Your task to perform on an android device: turn off improve location accuracy Image 0: 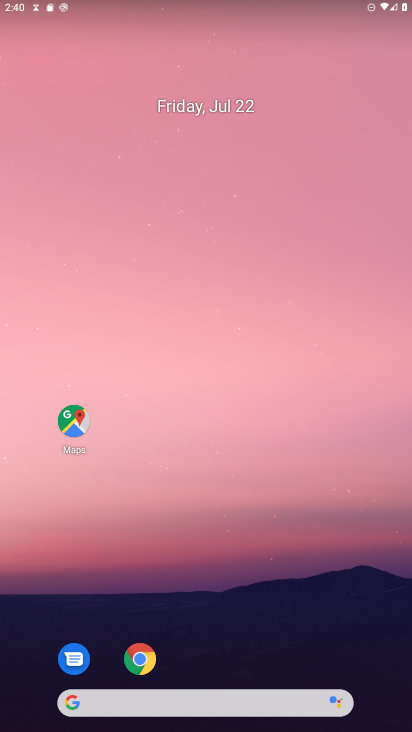
Step 0: drag from (273, 586) to (322, 18)
Your task to perform on an android device: turn off improve location accuracy Image 1: 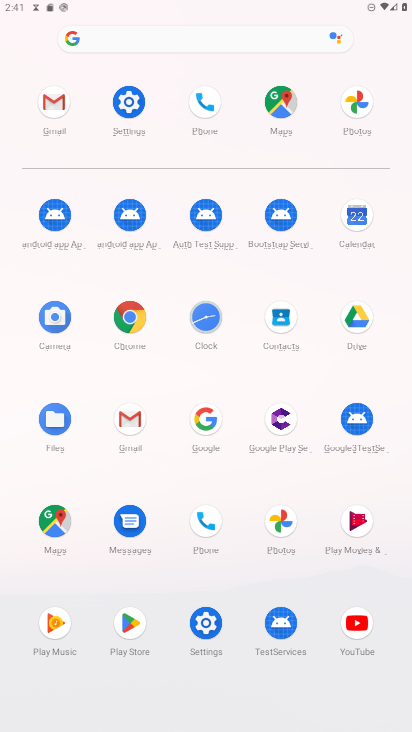
Step 1: click (137, 107)
Your task to perform on an android device: turn off improve location accuracy Image 2: 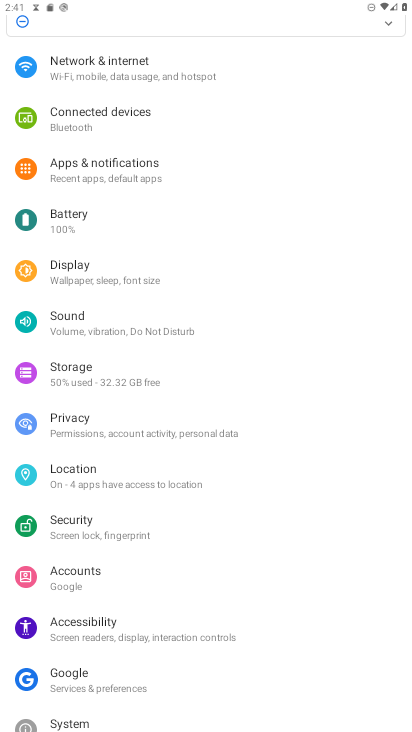
Step 2: click (75, 484)
Your task to perform on an android device: turn off improve location accuracy Image 3: 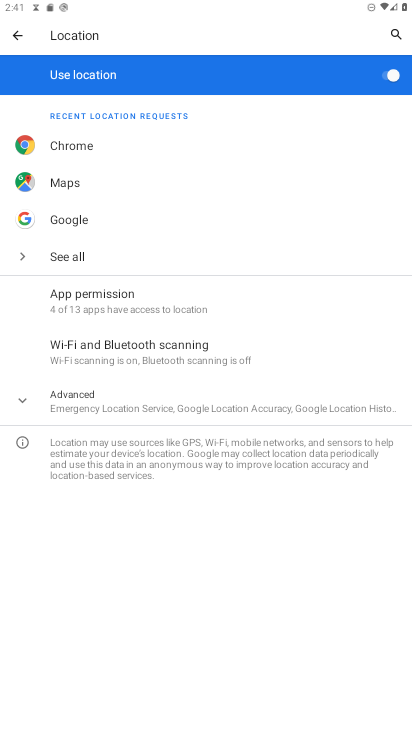
Step 3: click (74, 398)
Your task to perform on an android device: turn off improve location accuracy Image 4: 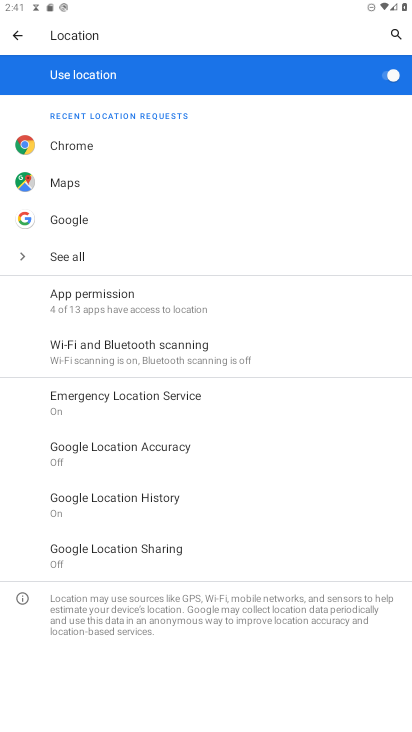
Step 4: click (74, 459)
Your task to perform on an android device: turn off improve location accuracy Image 5: 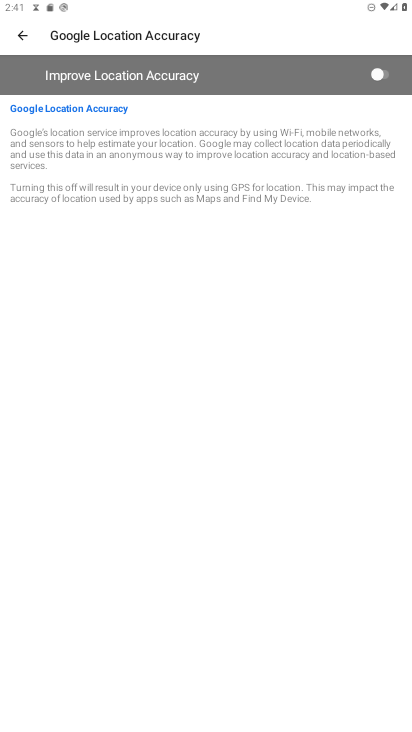
Step 5: task complete